Your task to perform on an android device: Set the phone to "Do not disturb". Image 0: 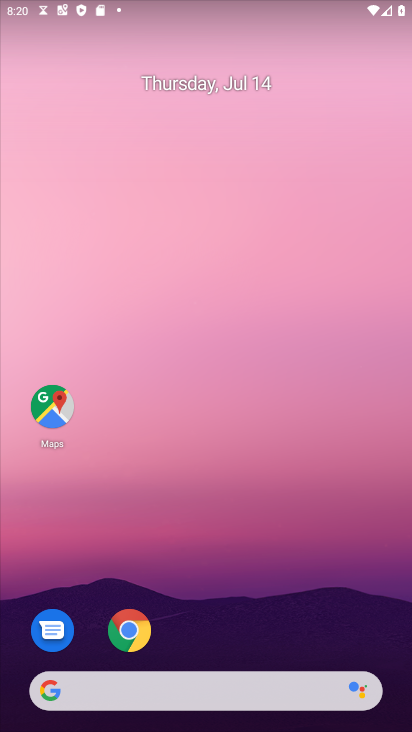
Step 0: drag from (296, 605) to (316, 257)
Your task to perform on an android device: Set the phone to "Do not disturb". Image 1: 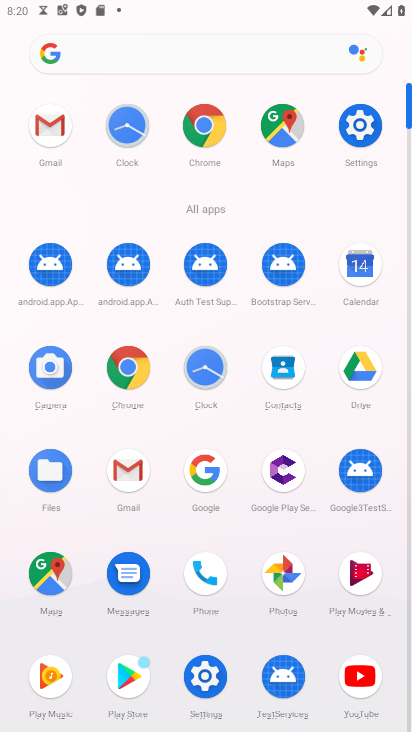
Step 1: click (349, 128)
Your task to perform on an android device: Set the phone to "Do not disturb". Image 2: 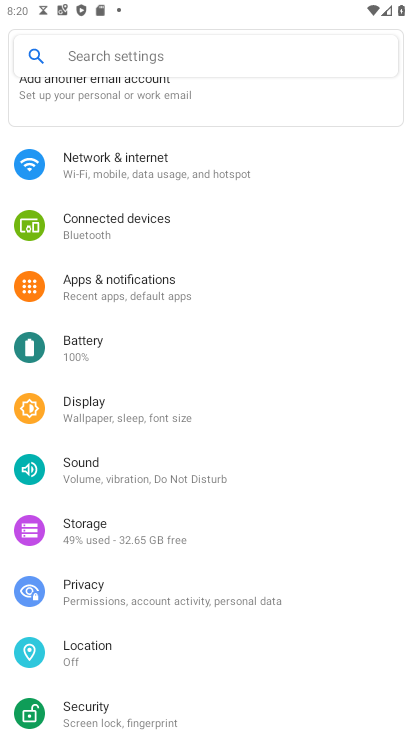
Step 2: click (104, 477)
Your task to perform on an android device: Set the phone to "Do not disturb". Image 3: 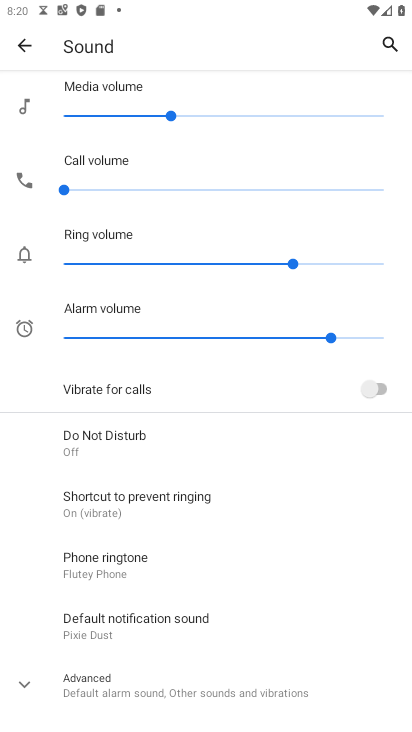
Step 3: click (154, 448)
Your task to perform on an android device: Set the phone to "Do not disturb". Image 4: 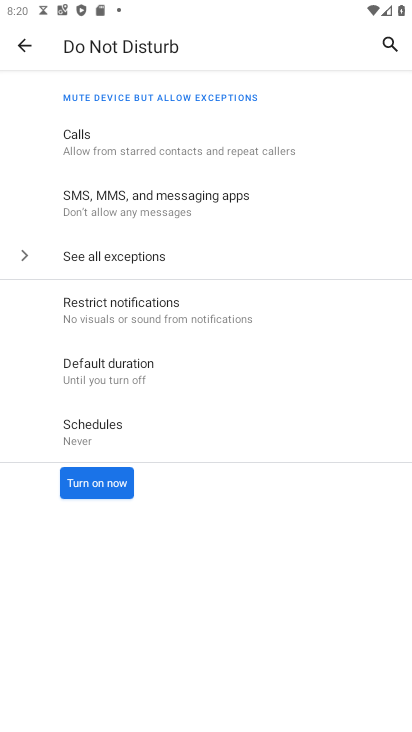
Step 4: click (105, 476)
Your task to perform on an android device: Set the phone to "Do not disturb". Image 5: 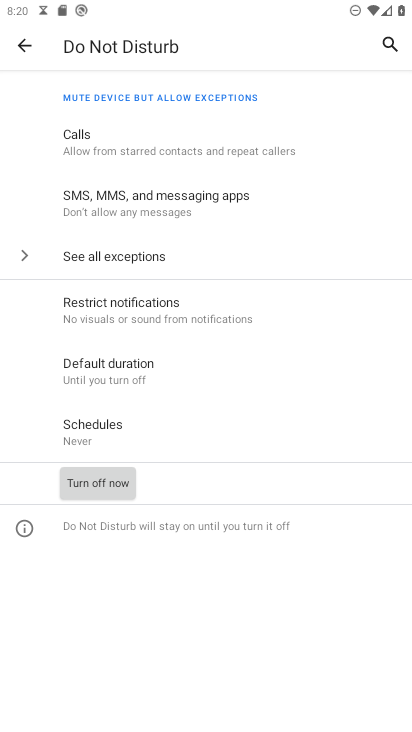
Step 5: task complete